Your task to perform on an android device: Go to network settings Image 0: 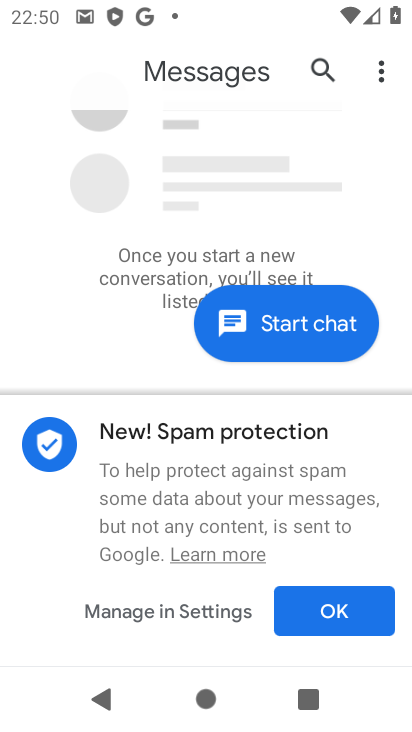
Step 0: press home button
Your task to perform on an android device: Go to network settings Image 1: 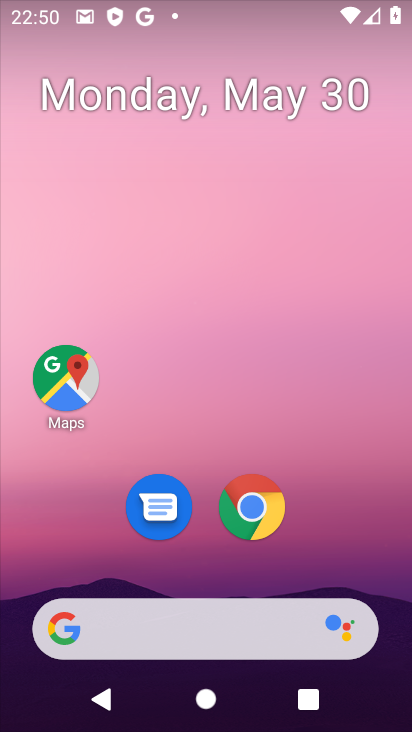
Step 1: drag from (373, 535) to (371, 133)
Your task to perform on an android device: Go to network settings Image 2: 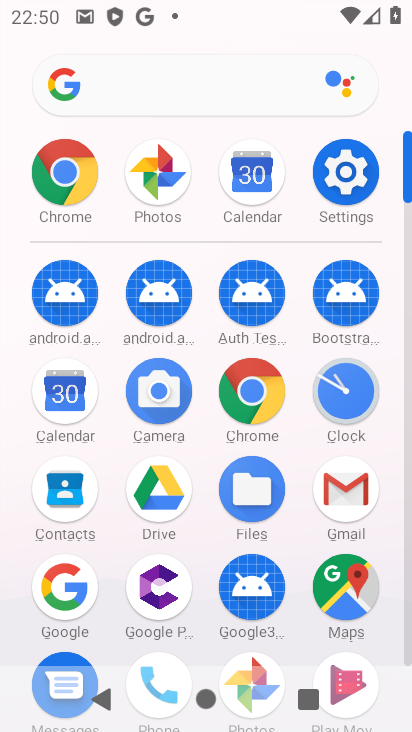
Step 2: click (340, 186)
Your task to perform on an android device: Go to network settings Image 3: 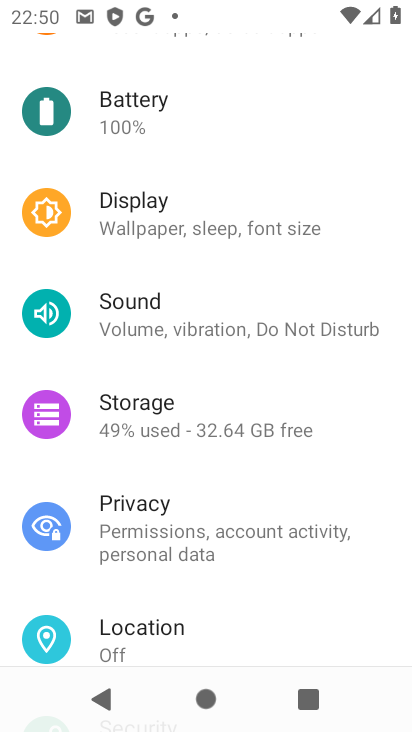
Step 3: drag from (359, 200) to (353, 370)
Your task to perform on an android device: Go to network settings Image 4: 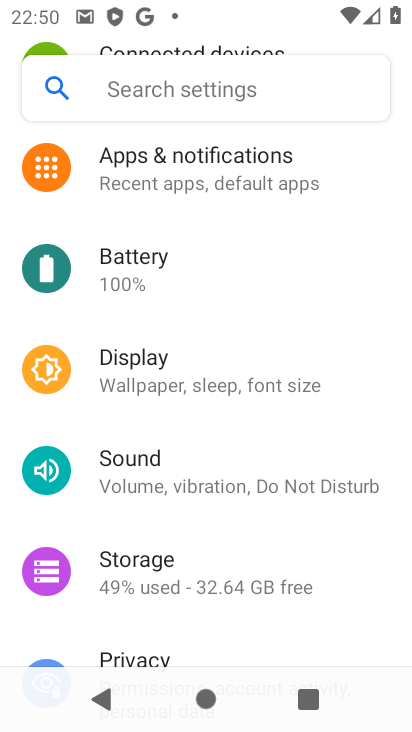
Step 4: drag from (367, 182) to (364, 430)
Your task to perform on an android device: Go to network settings Image 5: 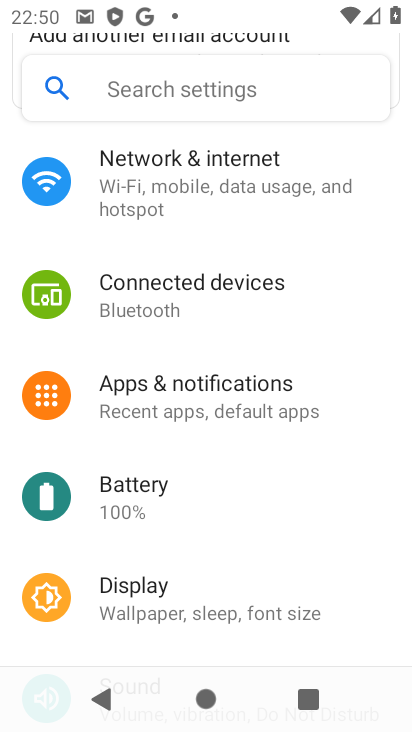
Step 5: drag from (368, 235) to (366, 383)
Your task to perform on an android device: Go to network settings Image 6: 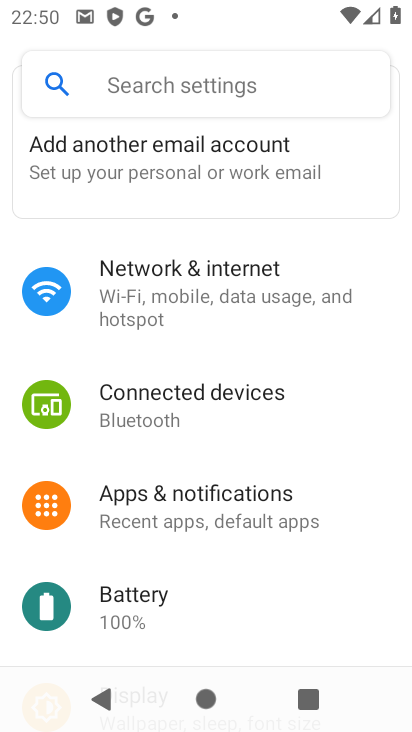
Step 6: drag from (364, 464) to (362, 344)
Your task to perform on an android device: Go to network settings Image 7: 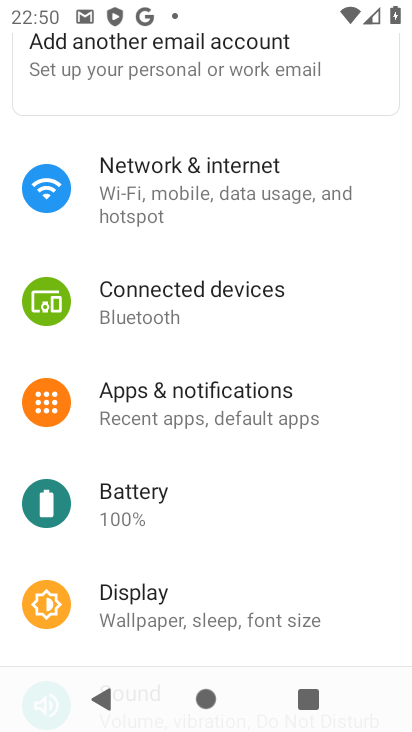
Step 7: click (298, 188)
Your task to perform on an android device: Go to network settings Image 8: 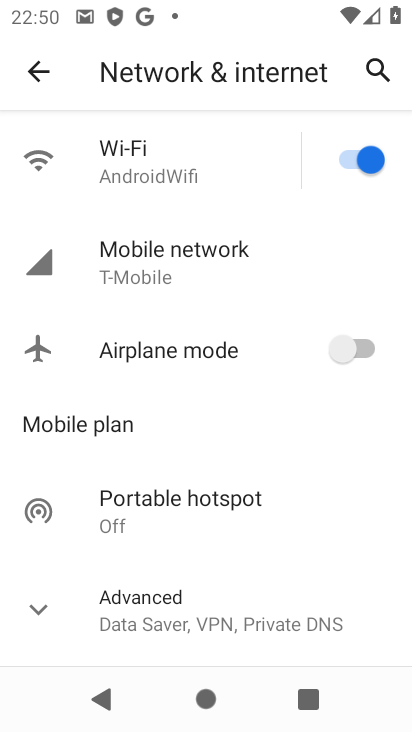
Step 8: task complete